Your task to perform on an android device: Open calendar and show me the second week of next month Image 0: 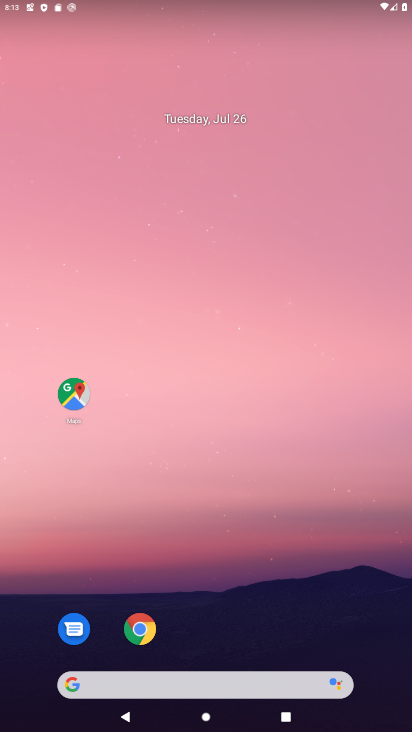
Step 0: drag from (206, 637) to (195, 80)
Your task to perform on an android device: Open calendar and show me the second week of next month Image 1: 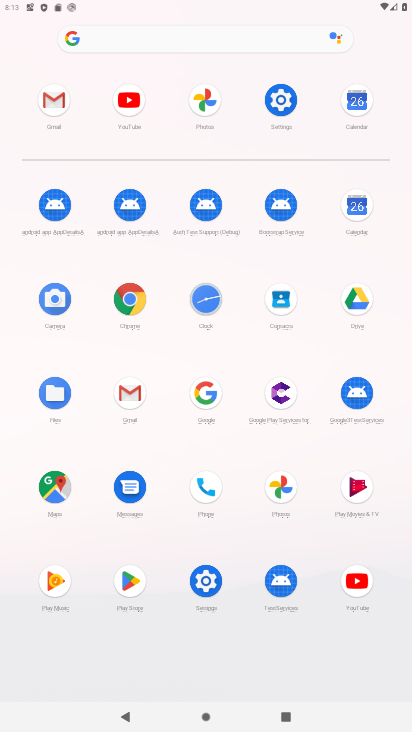
Step 1: click (351, 205)
Your task to perform on an android device: Open calendar and show me the second week of next month Image 2: 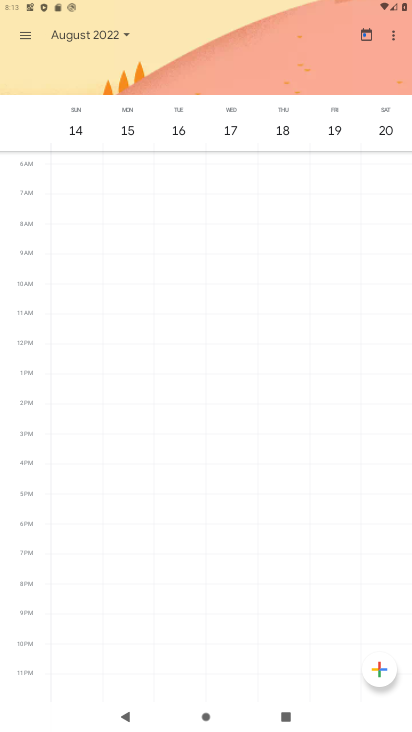
Step 2: task complete